Your task to perform on an android device: add a contact in the contacts app Image 0: 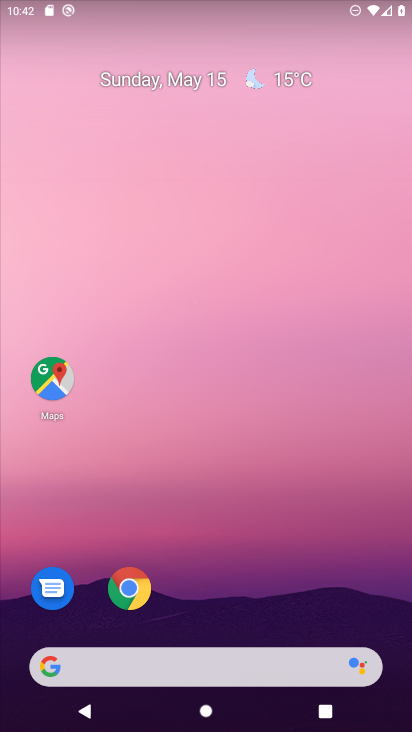
Step 0: drag from (219, 586) to (266, 163)
Your task to perform on an android device: add a contact in the contacts app Image 1: 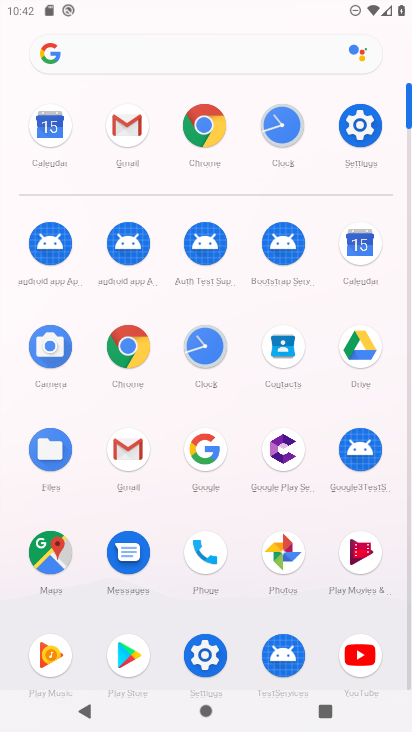
Step 1: click (280, 356)
Your task to perform on an android device: add a contact in the contacts app Image 2: 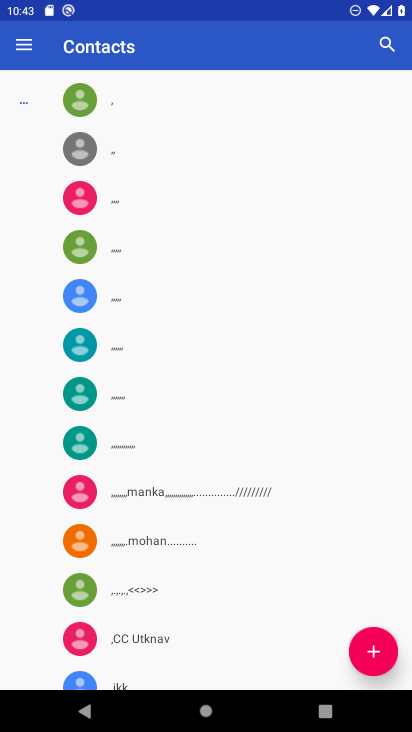
Step 2: click (378, 644)
Your task to perform on an android device: add a contact in the contacts app Image 3: 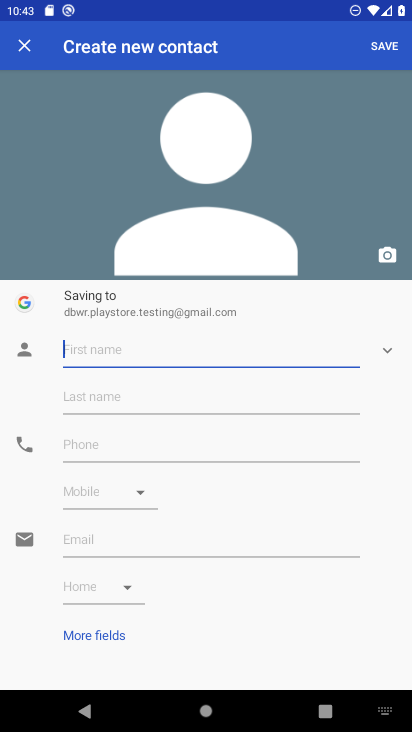
Step 3: type ""
Your task to perform on an android device: add a contact in the contacts app Image 4: 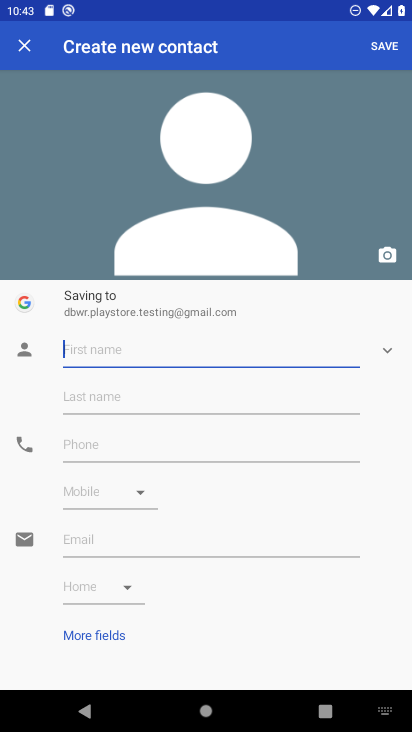
Step 4: type "player"
Your task to perform on an android device: add a contact in the contacts app Image 5: 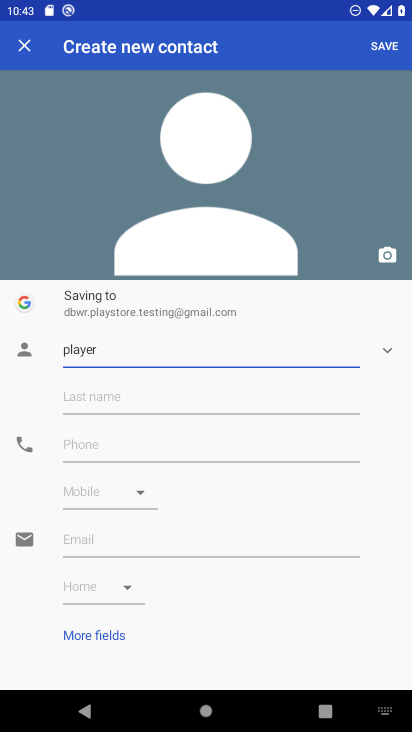
Step 5: click (380, 44)
Your task to perform on an android device: add a contact in the contacts app Image 6: 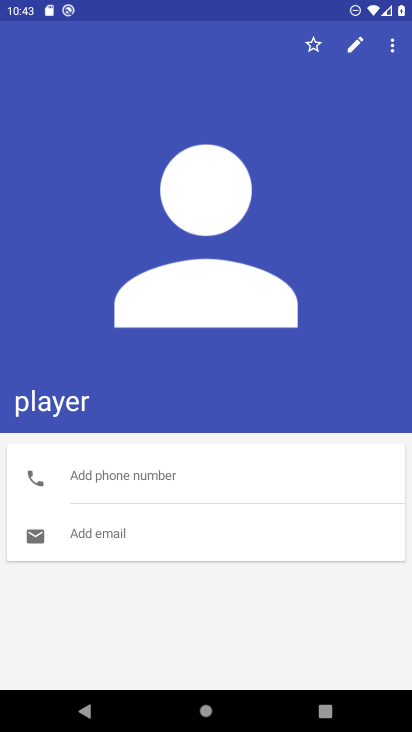
Step 6: task complete